Your task to perform on an android device: See recent photos Image 0: 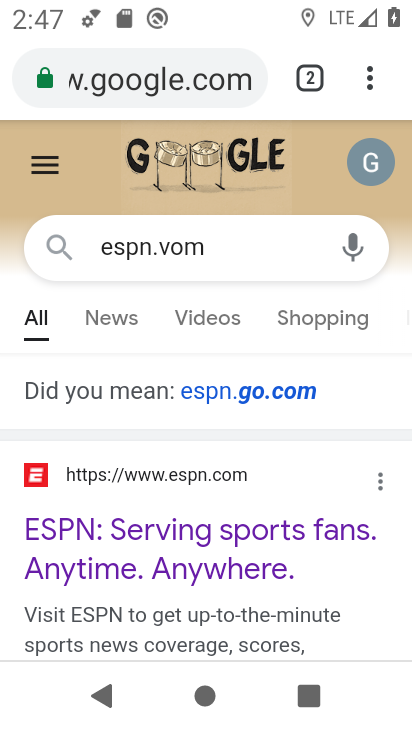
Step 0: press home button
Your task to perform on an android device: See recent photos Image 1: 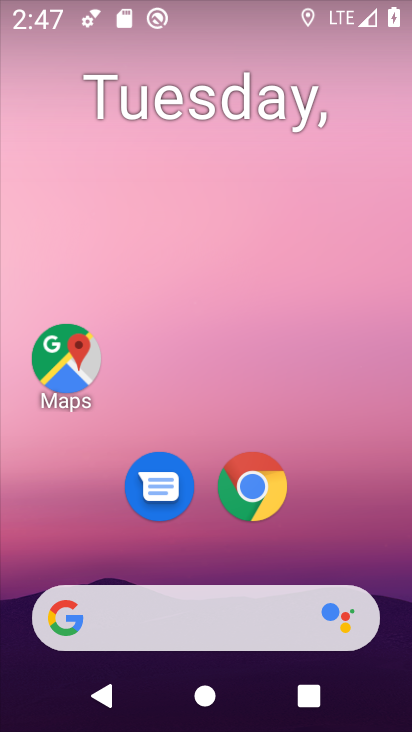
Step 1: drag from (384, 538) to (351, 78)
Your task to perform on an android device: See recent photos Image 2: 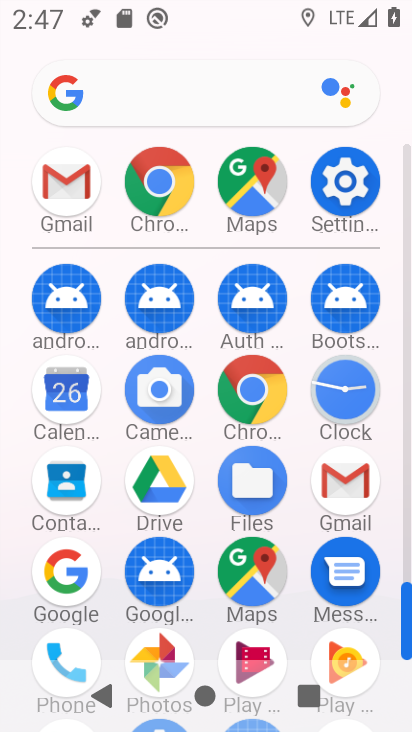
Step 2: drag from (385, 488) to (384, 317)
Your task to perform on an android device: See recent photos Image 3: 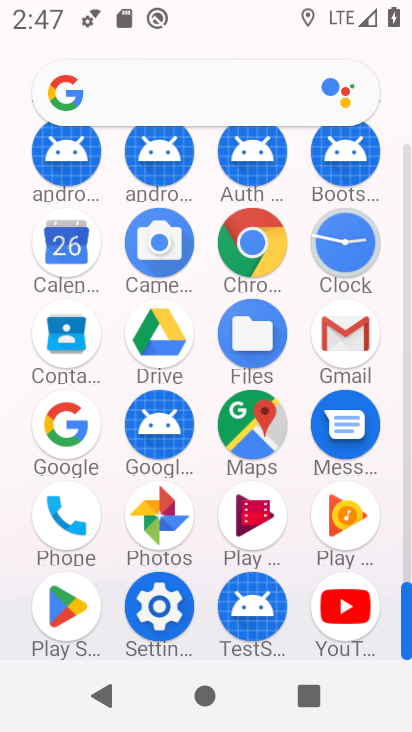
Step 3: click (169, 521)
Your task to perform on an android device: See recent photos Image 4: 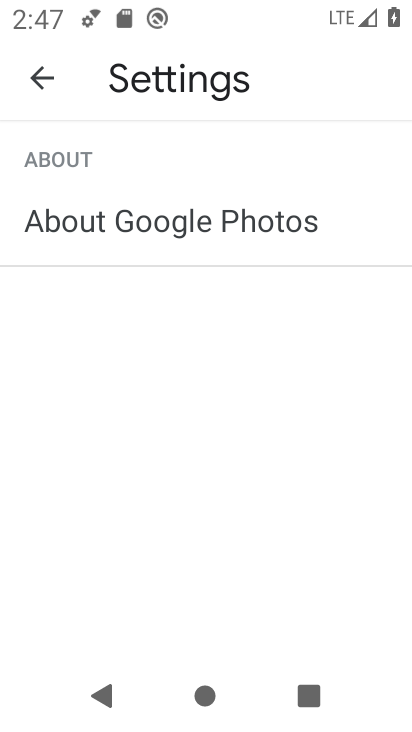
Step 4: press back button
Your task to perform on an android device: See recent photos Image 5: 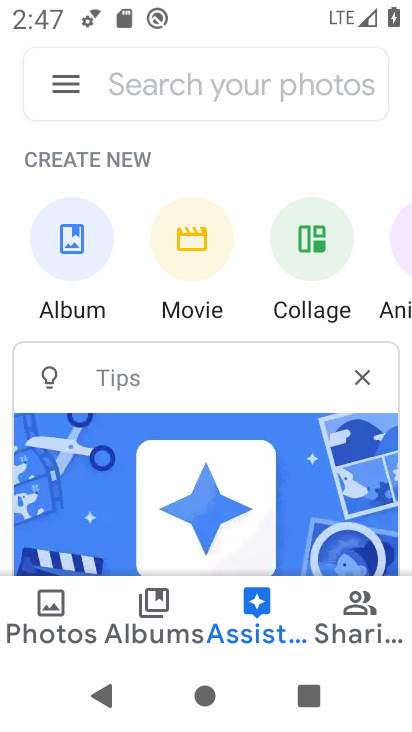
Step 5: click (57, 618)
Your task to perform on an android device: See recent photos Image 6: 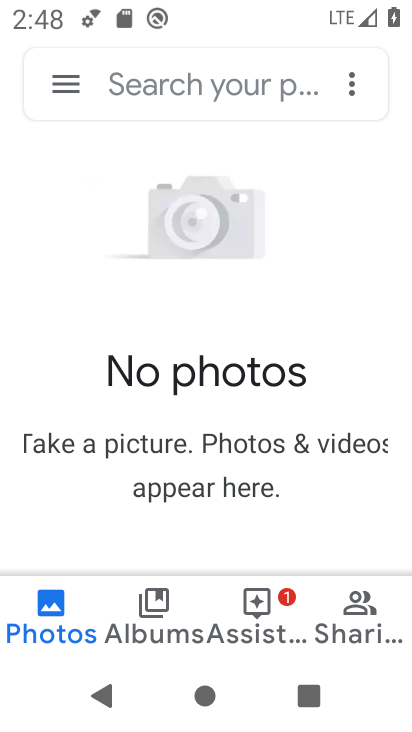
Step 6: task complete